Your task to perform on an android device: change timer sound Image 0: 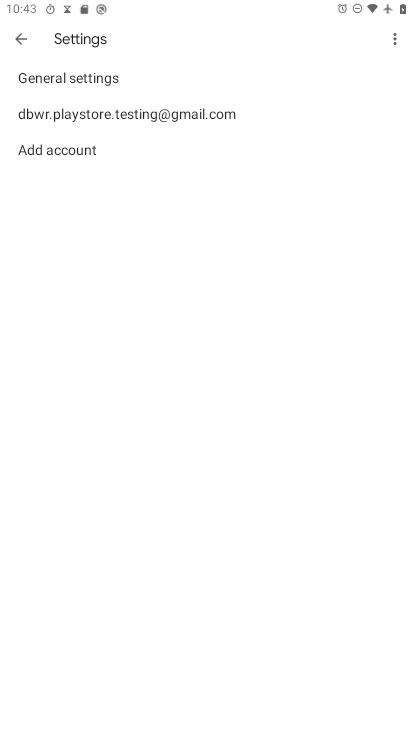
Step 0: press home button
Your task to perform on an android device: change timer sound Image 1: 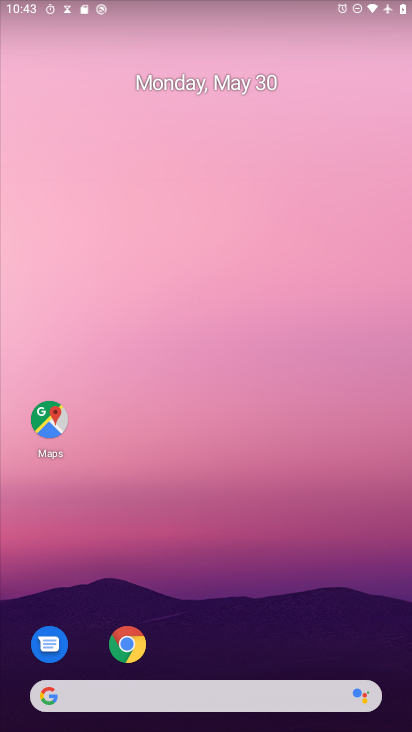
Step 1: drag from (216, 618) to (264, 62)
Your task to perform on an android device: change timer sound Image 2: 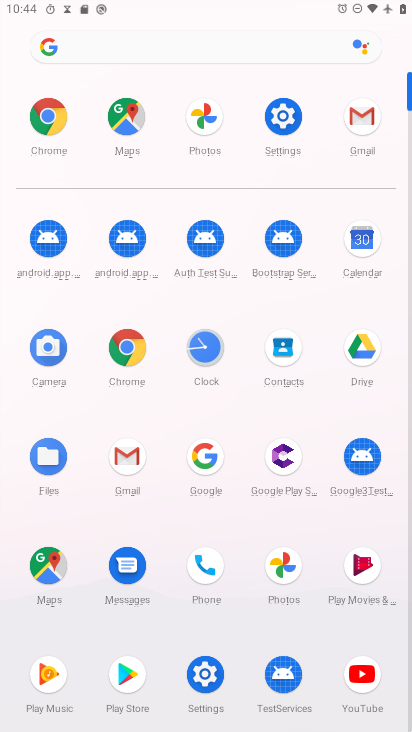
Step 2: click (200, 347)
Your task to perform on an android device: change timer sound Image 3: 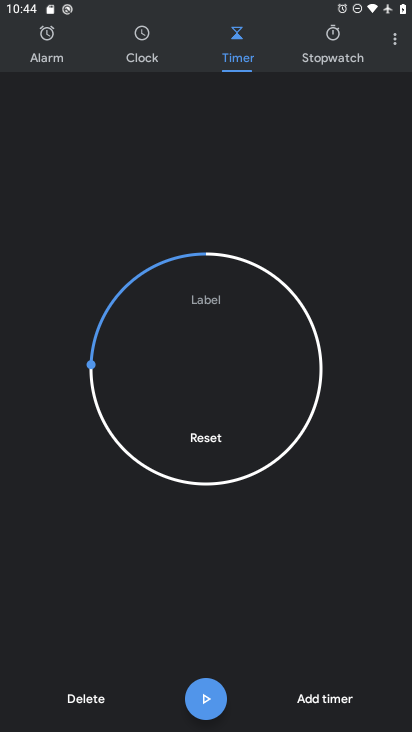
Step 3: click (391, 35)
Your task to perform on an android device: change timer sound Image 4: 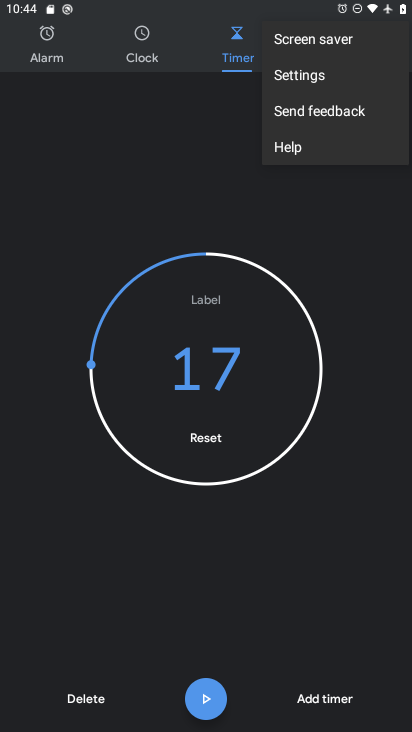
Step 4: click (298, 78)
Your task to perform on an android device: change timer sound Image 5: 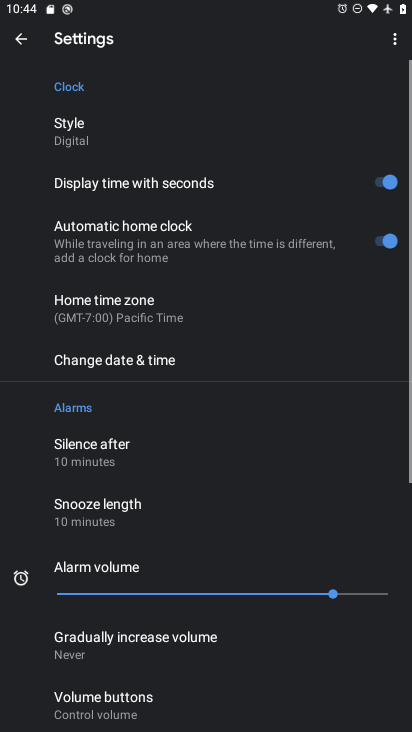
Step 5: drag from (220, 608) to (208, 116)
Your task to perform on an android device: change timer sound Image 6: 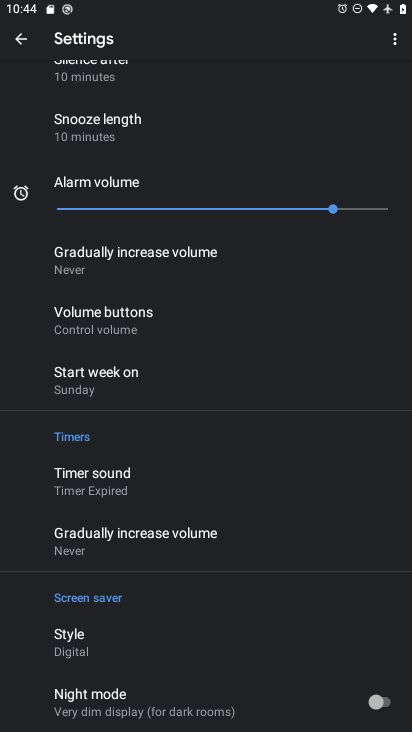
Step 6: click (108, 493)
Your task to perform on an android device: change timer sound Image 7: 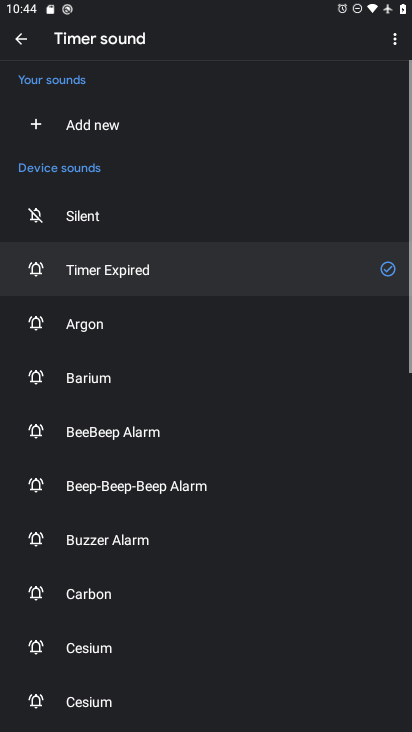
Step 7: click (110, 330)
Your task to perform on an android device: change timer sound Image 8: 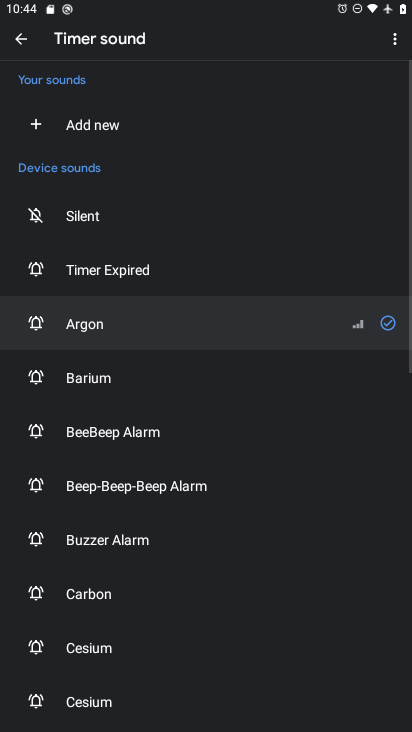
Step 8: task complete